Your task to perform on an android device: delete location history Image 0: 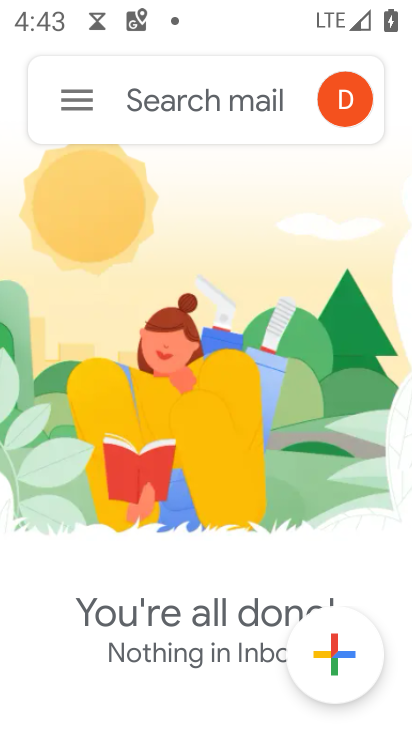
Step 0: press home button
Your task to perform on an android device: delete location history Image 1: 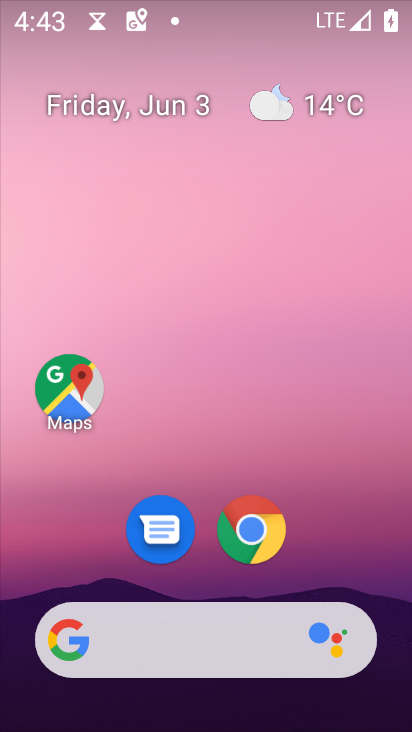
Step 1: drag from (345, 554) to (359, 10)
Your task to perform on an android device: delete location history Image 2: 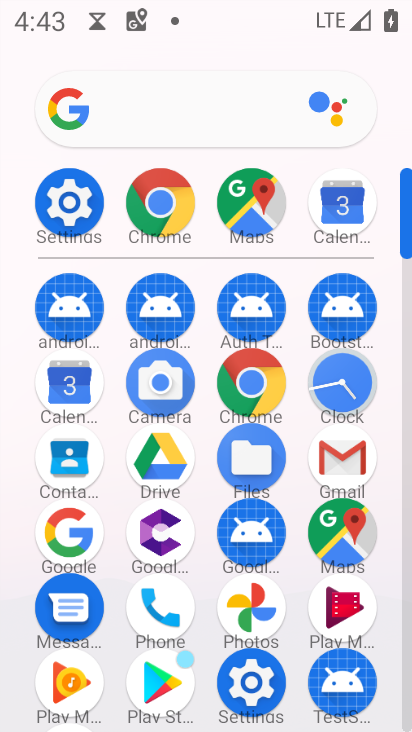
Step 2: click (263, 218)
Your task to perform on an android device: delete location history Image 3: 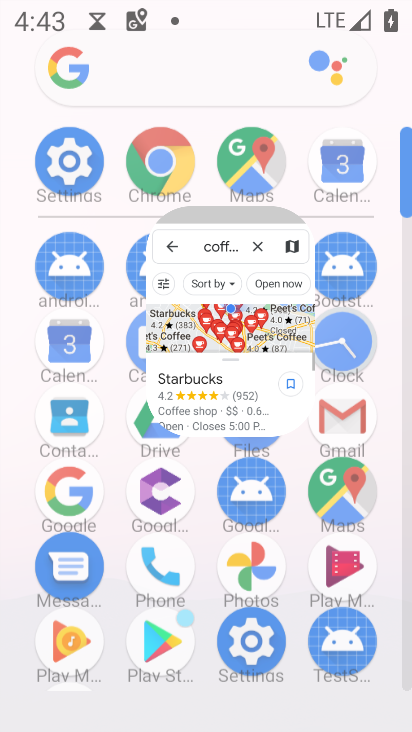
Step 3: click (260, 212)
Your task to perform on an android device: delete location history Image 4: 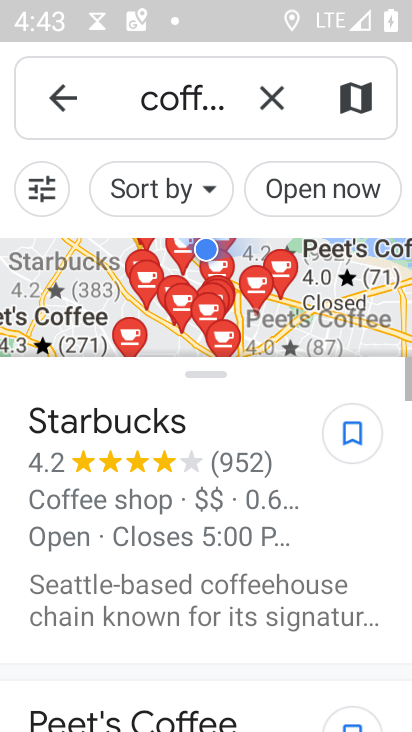
Step 4: click (63, 90)
Your task to perform on an android device: delete location history Image 5: 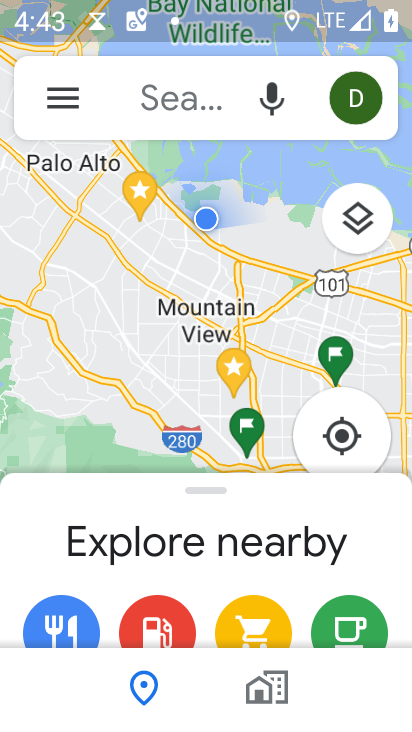
Step 5: click (58, 96)
Your task to perform on an android device: delete location history Image 6: 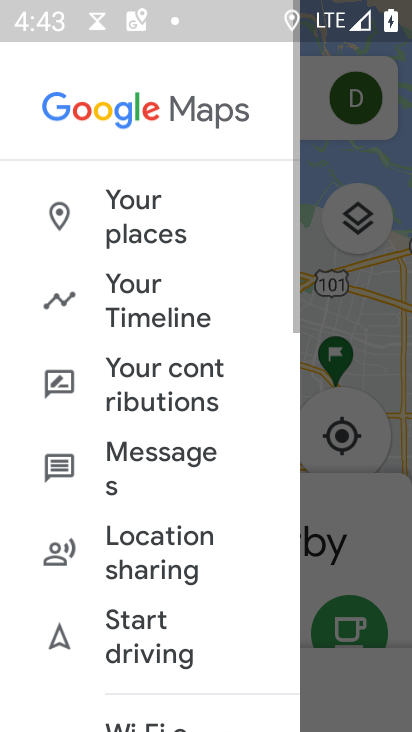
Step 6: click (138, 297)
Your task to perform on an android device: delete location history Image 7: 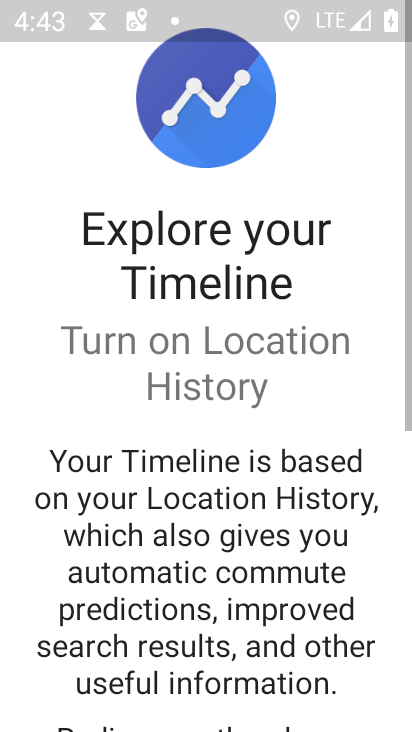
Step 7: drag from (262, 563) to (335, 58)
Your task to perform on an android device: delete location history Image 8: 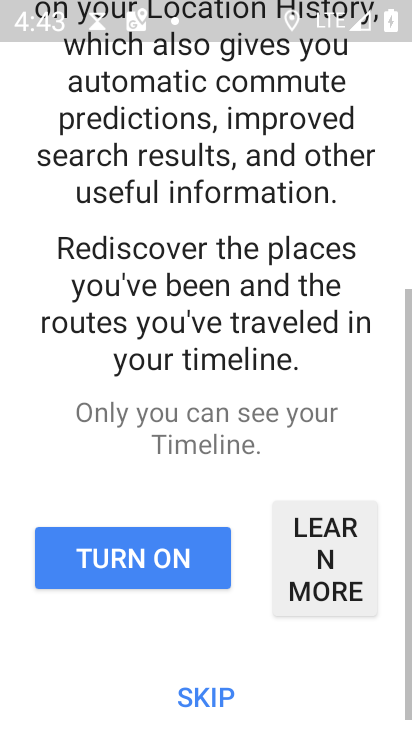
Step 8: drag from (255, 559) to (286, 110)
Your task to perform on an android device: delete location history Image 9: 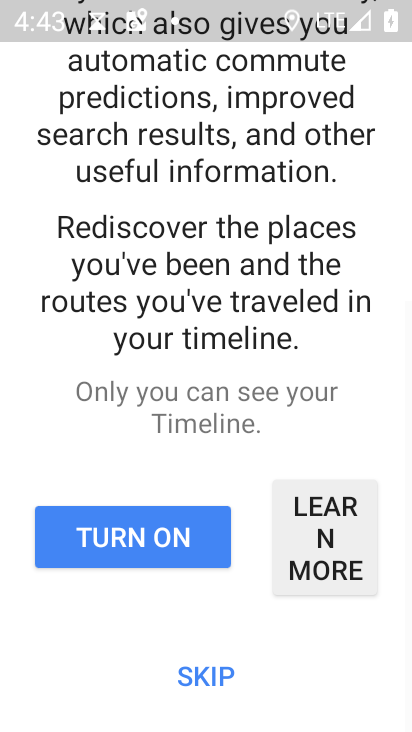
Step 9: click (233, 684)
Your task to perform on an android device: delete location history Image 10: 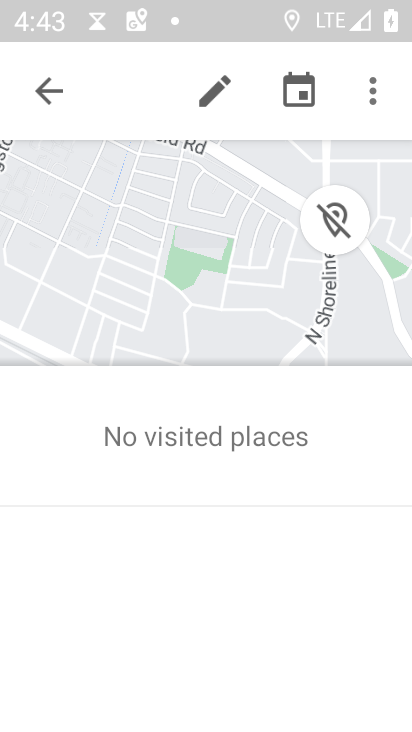
Step 10: click (371, 100)
Your task to perform on an android device: delete location history Image 11: 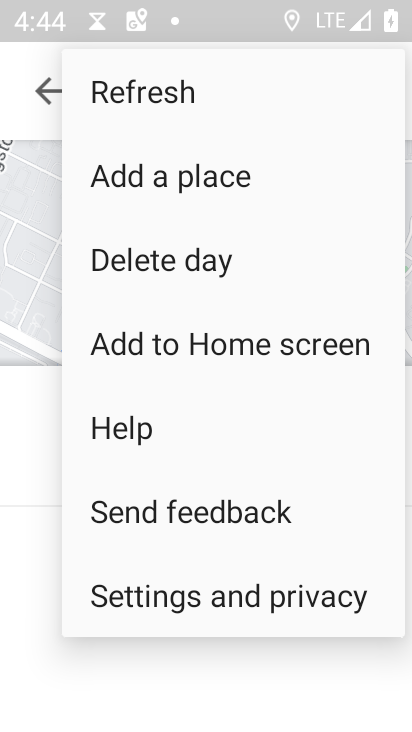
Step 11: click (189, 593)
Your task to perform on an android device: delete location history Image 12: 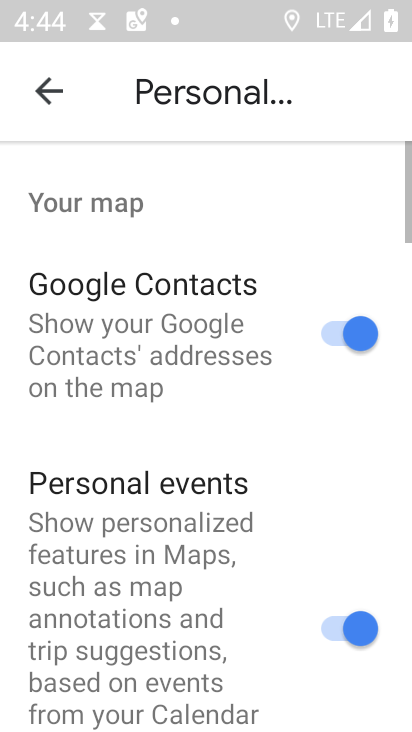
Step 12: drag from (189, 549) to (236, 104)
Your task to perform on an android device: delete location history Image 13: 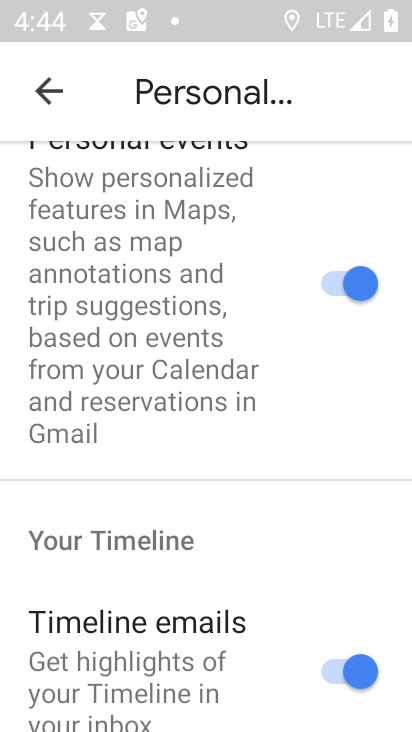
Step 13: drag from (204, 635) to (243, 156)
Your task to perform on an android device: delete location history Image 14: 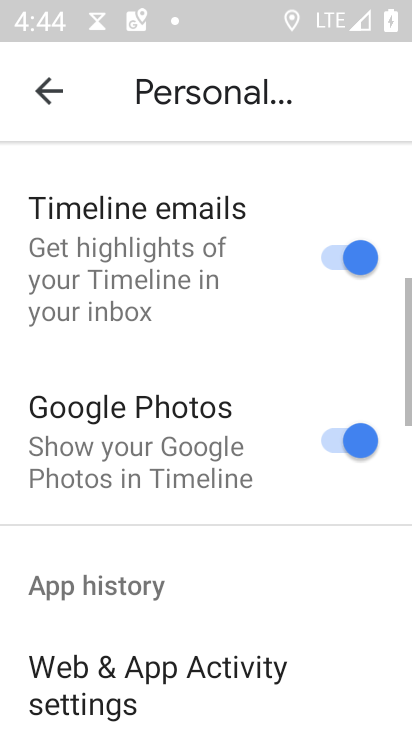
Step 14: drag from (169, 621) to (208, 195)
Your task to perform on an android device: delete location history Image 15: 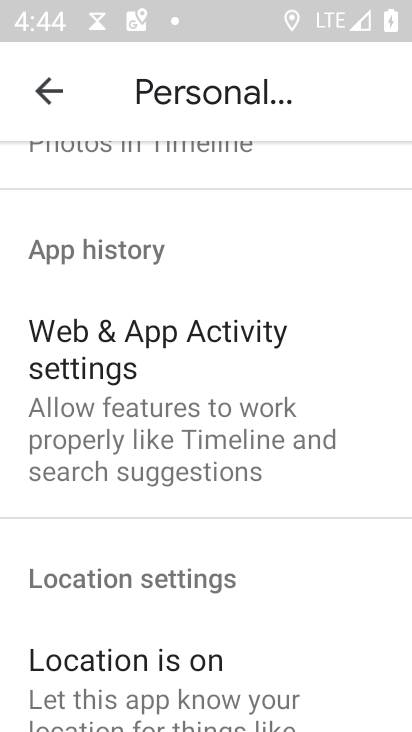
Step 15: drag from (171, 630) to (229, 97)
Your task to perform on an android device: delete location history Image 16: 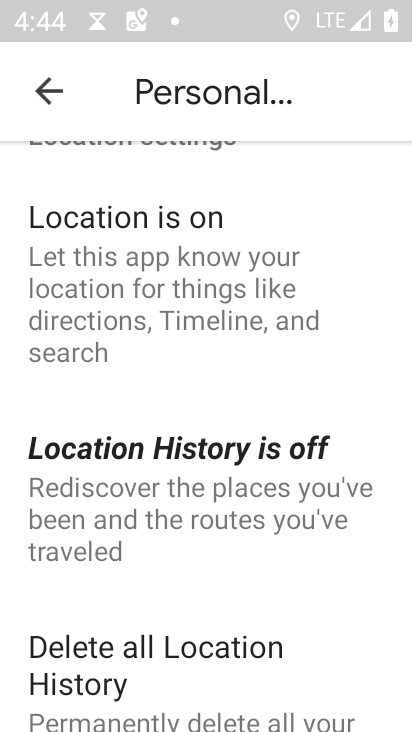
Step 16: drag from (186, 642) to (230, 206)
Your task to perform on an android device: delete location history Image 17: 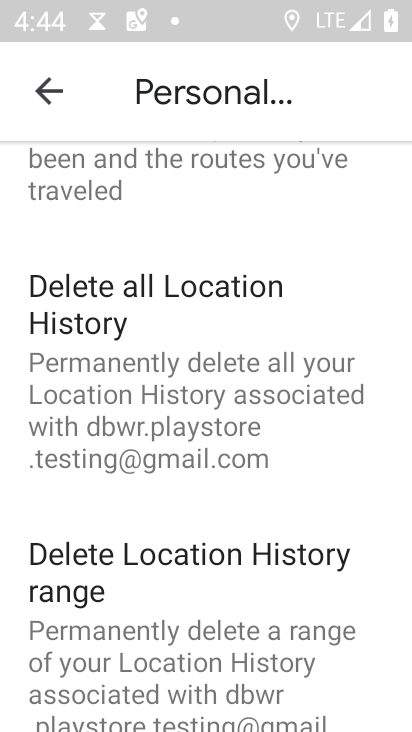
Step 17: click (114, 301)
Your task to perform on an android device: delete location history Image 18: 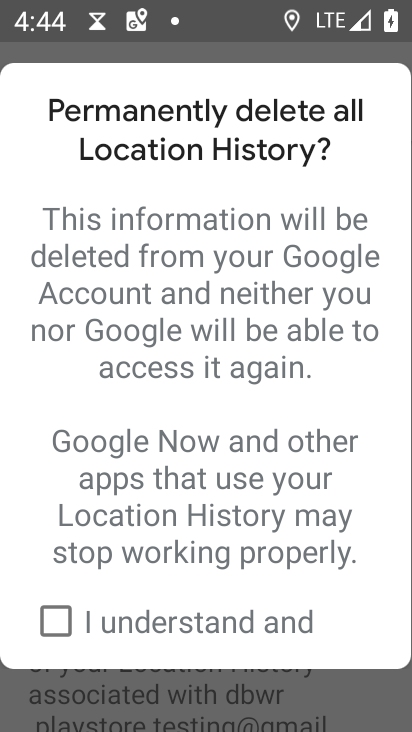
Step 18: click (44, 620)
Your task to perform on an android device: delete location history Image 19: 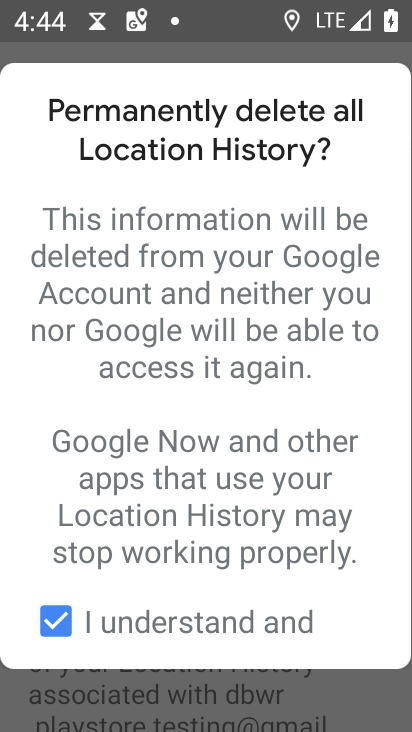
Step 19: task complete